Your task to perform on an android device: open a new tab in the chrome app Image 0: 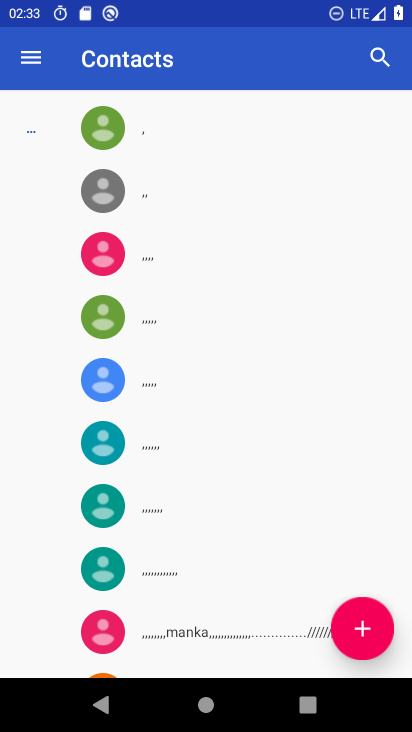
Step 0: press home button
Your task to perform on an android device: open a new tab in the chrome app Image 1: 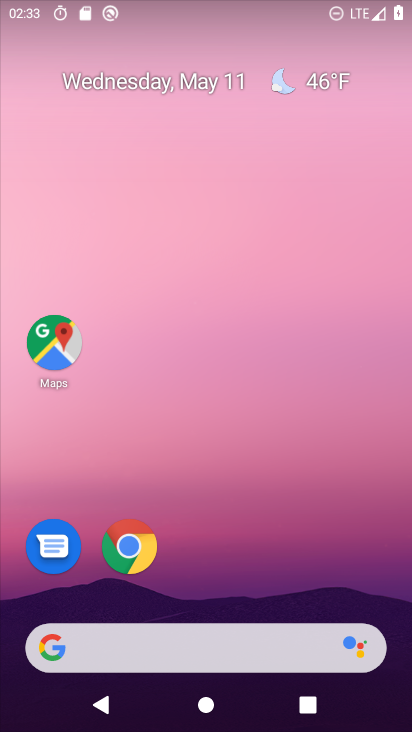
Step 1: drag from (250, 669) to (254, 163)
Your task to perform on an android device: open a new tab in the chrome app Image 2: 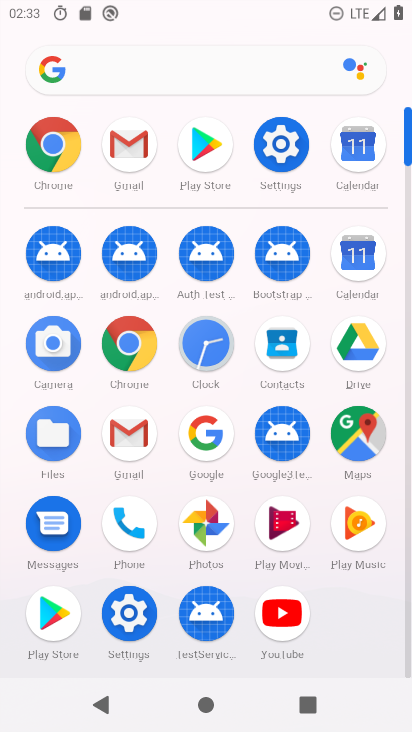
Step 2: click (146, 348)
Your task to perform on an android device: open a new tab in the chrome app Image 3: 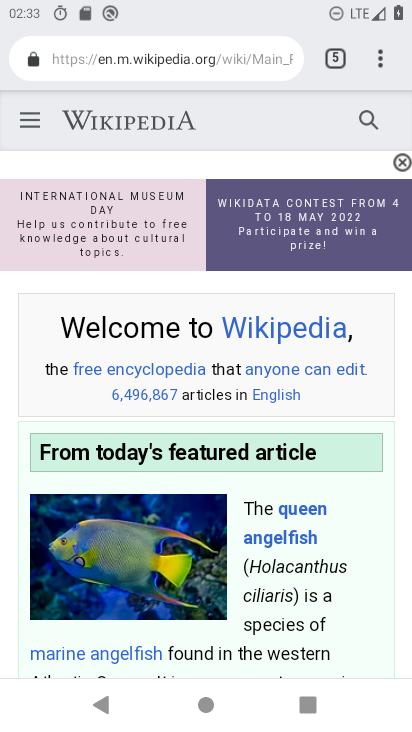
Step 3: click (374, 70)
Your task to perform on an android device: open a new tab in the chrome app Image 4: 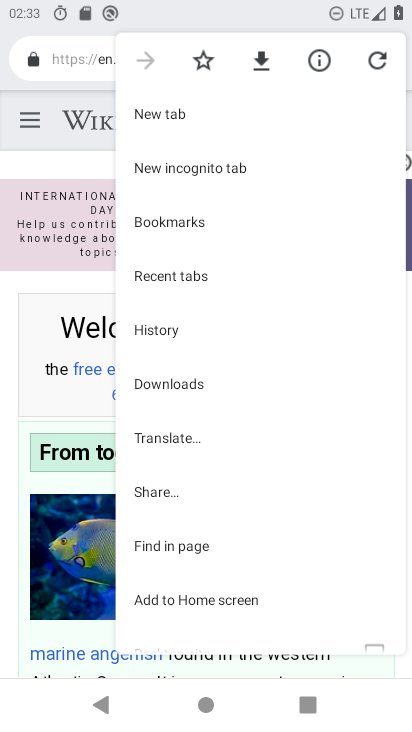
Step 4: click (233, 108)
Your task to perform on an android device: open a new tab in the chrome app Image 5: 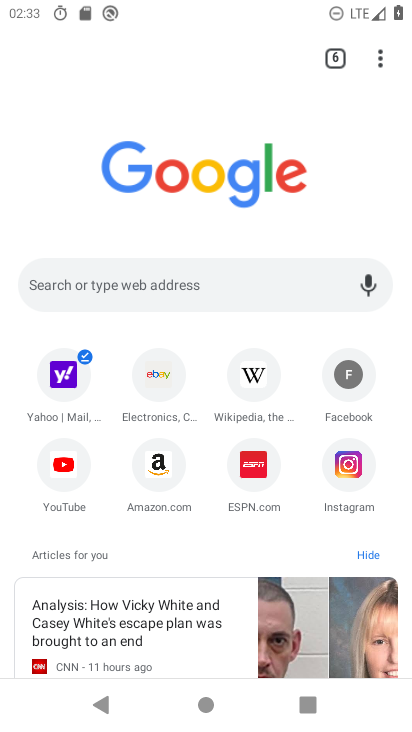
Step 5: task complete